Your task to perform on an android device: clear history in the chrome app Image 0: 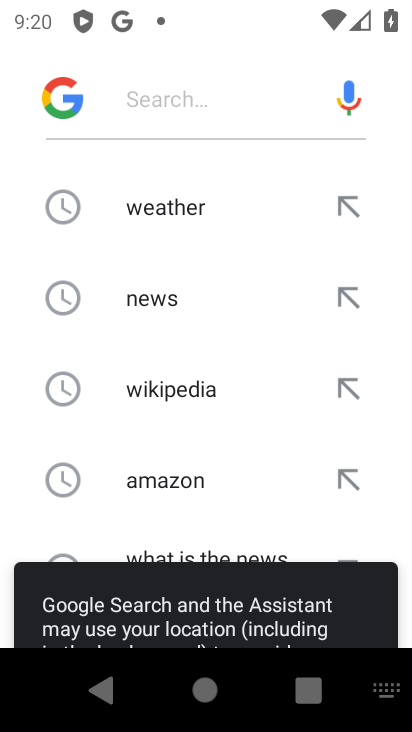
Step 0: press home button
Your task to perform on an android device: clear history in the chrome app Image 1: 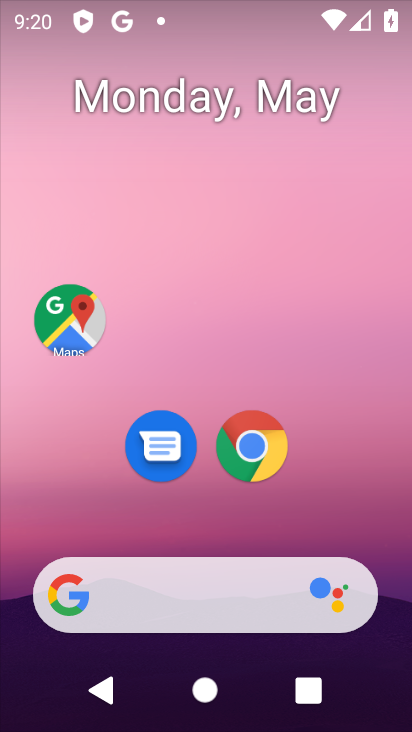
Step 1: click (268, 461)
Your task to perform on an android device: clear history in the chrome app Image 2: 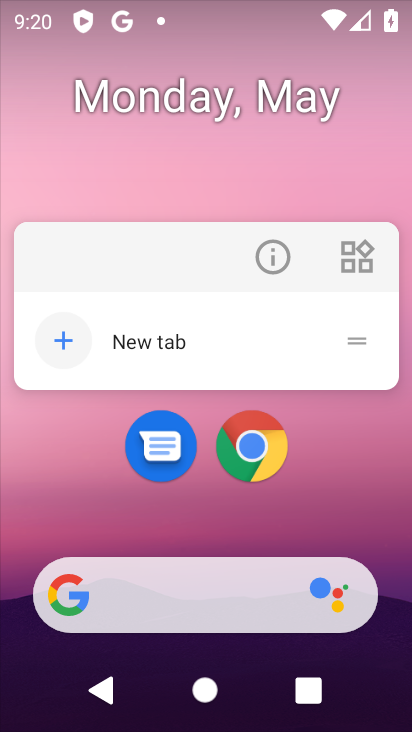
Step 2: click (262, 444)
Your task to perform on an android device: clear history in the chrome app Image 3: 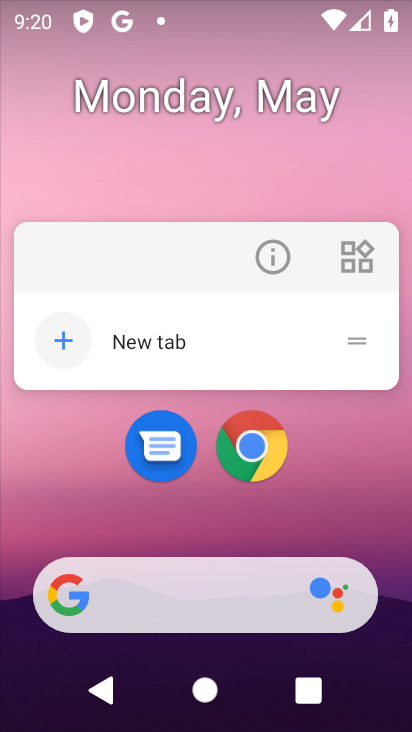
Step 3: click (258, 433)
Your task to perform on an android device: clear history in the chrome app Image 4: 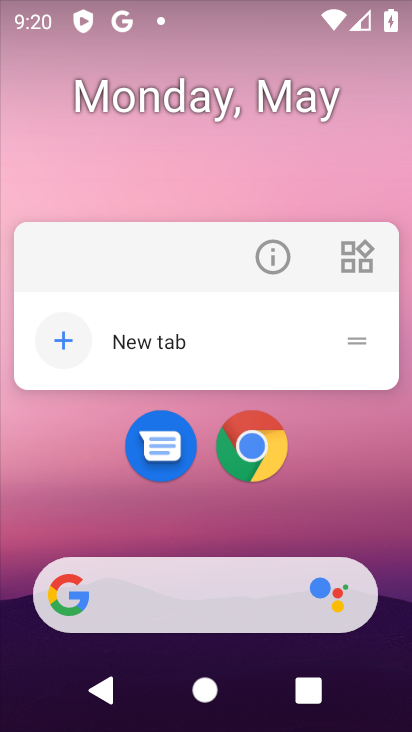
Step 4: click (228, 438)
Your task to perform on an android device: clear history in the chrome app Image 5: 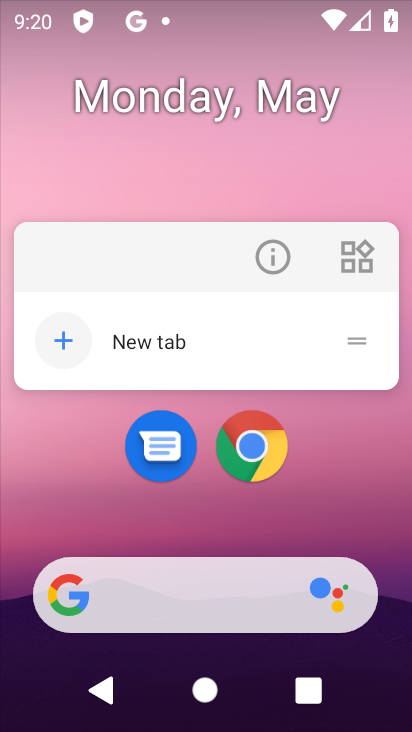
Step 5: click (248, 458)
Your task to perform on an android device: clear history in the chrome app Image 6: 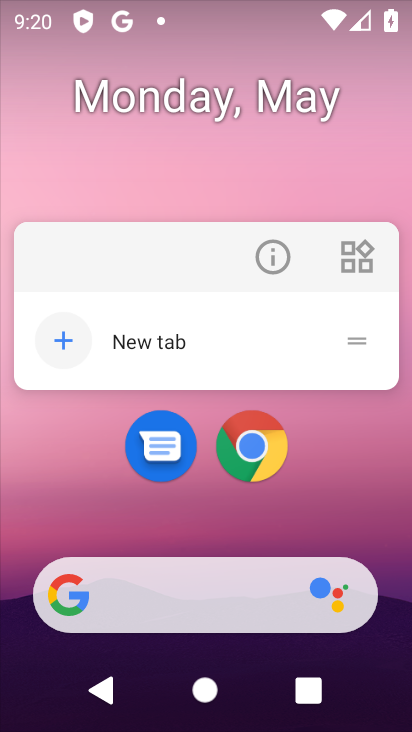
Step 6: click (275, 457)
Your task to perform on an android device: clear history in the chrome app Image 7: 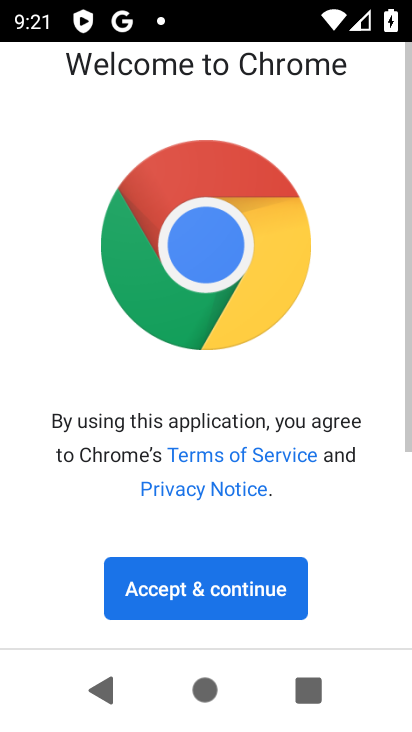
Step 7: click (208, 590)
Your task to perform on an android device: clear history in the chrome app Image 8: 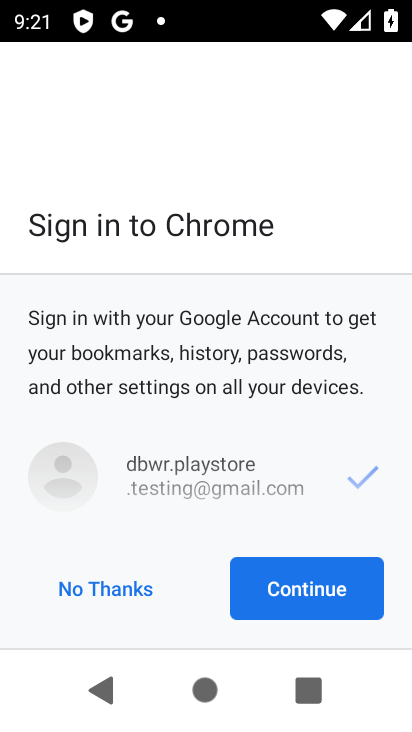
Step 8: click (341, 585)
Your task to perform on an android device: clear history in the chrome app Image 9: 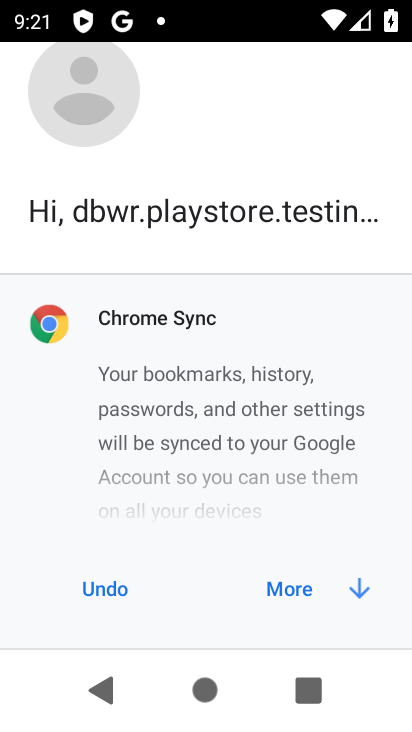
Step 9: click (334, 586)
Your task to perform on an android device: clear history in the chrome app Image 10: 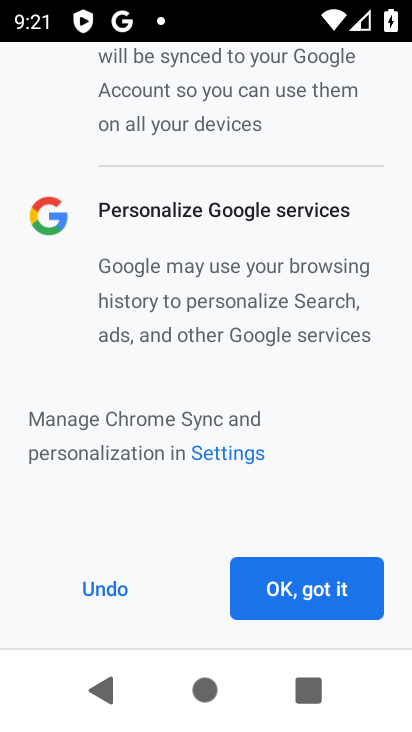
Step 10: click (334, 591)
Your task to perform on an android device: clear history in the chrome app Image 11: 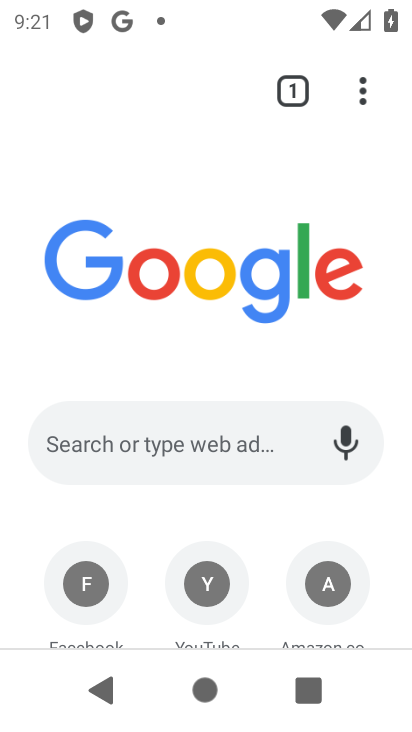
Step 11: task complete